Your task to perform on an android device: Add usb-c to the cart on ebay.com Image 0: 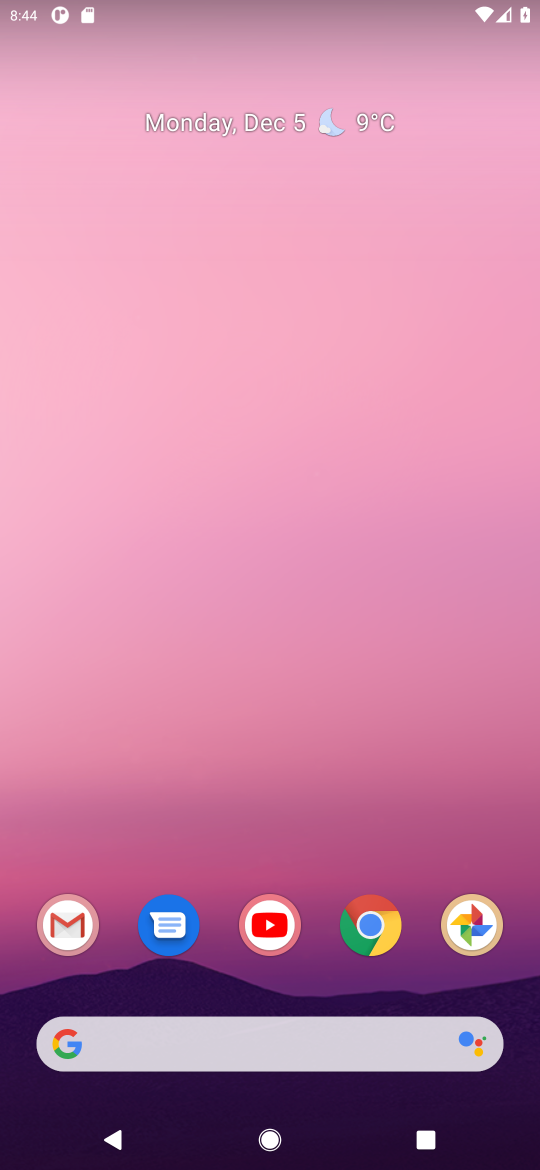
Step 0: click (358, 940)
Your task to perform on an android device: Add usb-c to the cart on ebay.com Image 1: 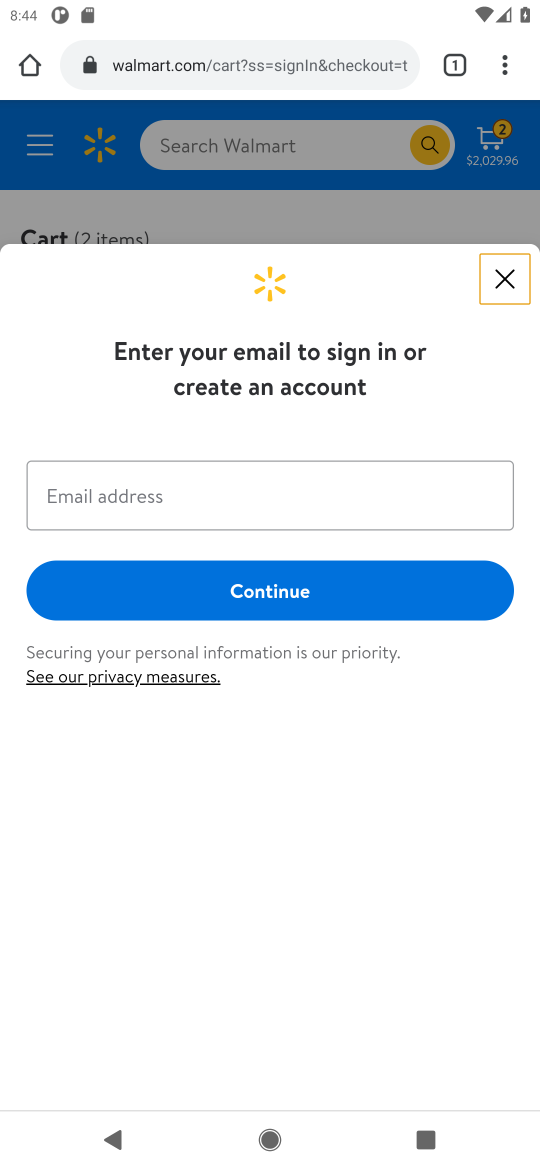
Step 1: click (187, 74)
Your task to perform on an android device: Add usb-c to the cart on ebay.com Image 2: 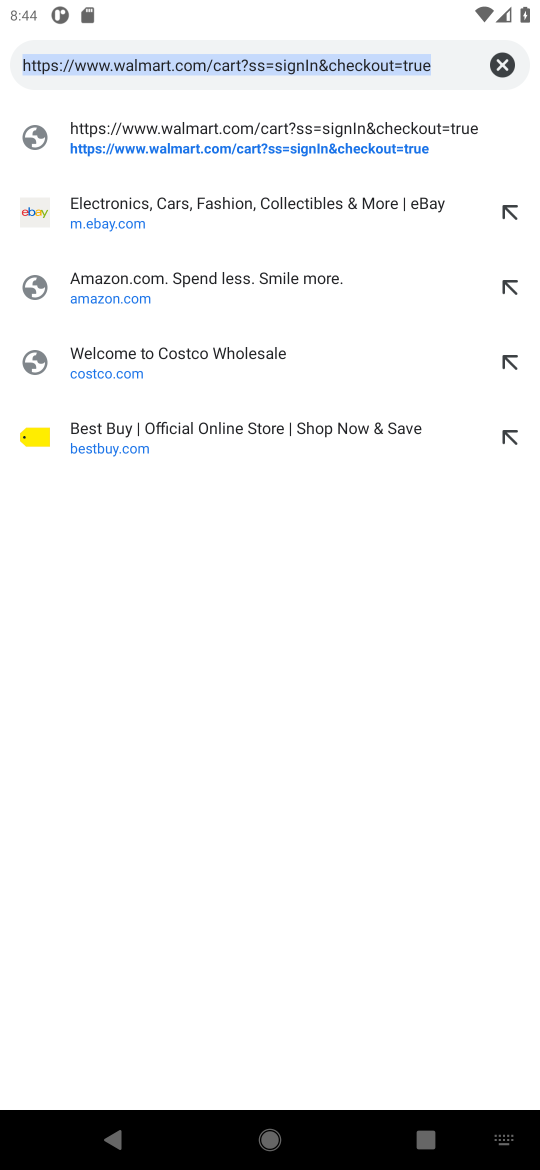
Step 2: click (104, 214)
Your task to perform on an android device: Add usb-c to the cart on ebay.com Image 3: 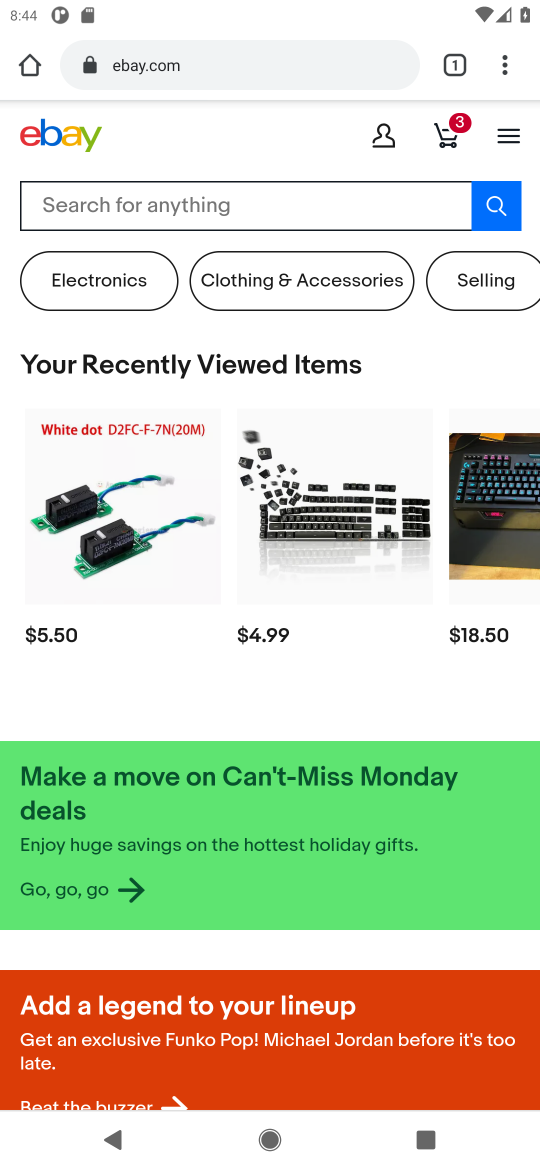
Step 3: click (133, 195)
Your task to perform on an android device: Add usb-c to the cart on ebay.com Image 4: 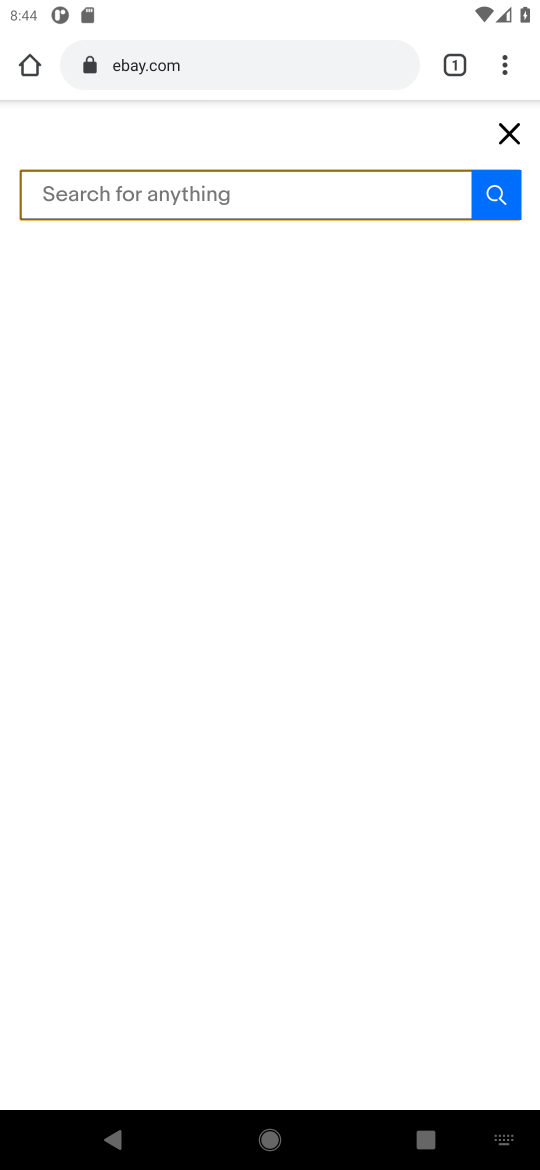
Step 4: type "usb-c"
Your task to perform on an android device: Add usb-c to the cart on ebay.com Image 5: 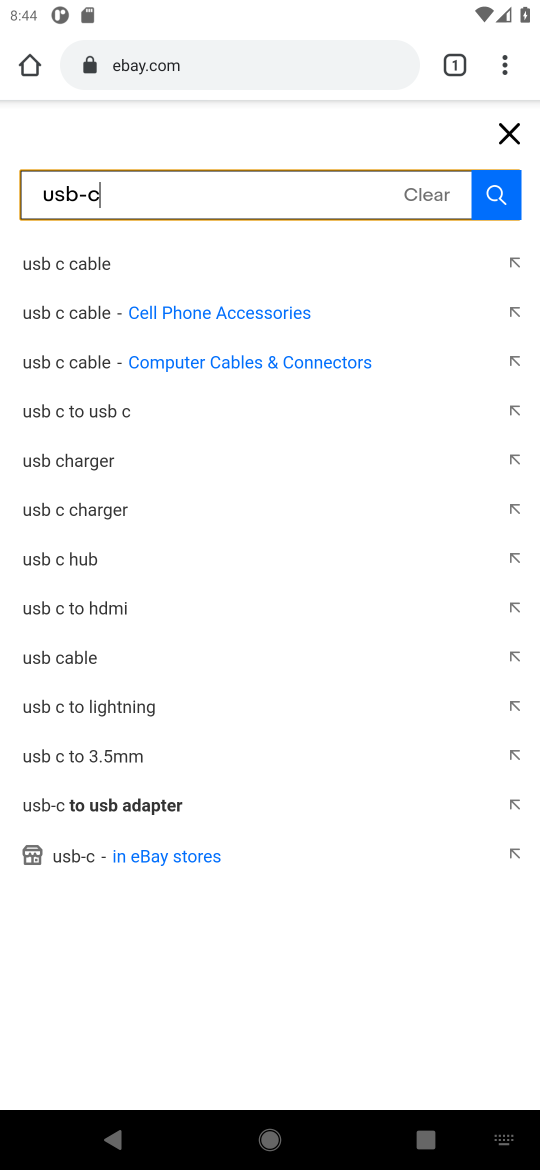
Step 5: click (499, 202)
Your task to perform on an android device: Add usb-c to the cart on ebay.com Image 6: 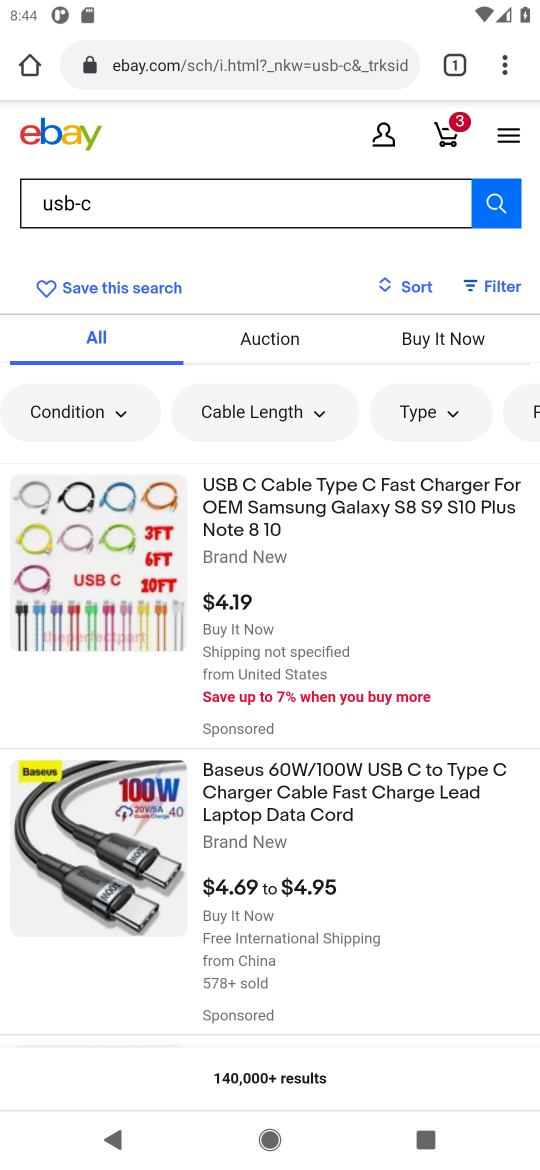
Step 6: click (264, 524)
Your task to perform on an android device: Add usb-c to the cart on ebay.com Image 7: 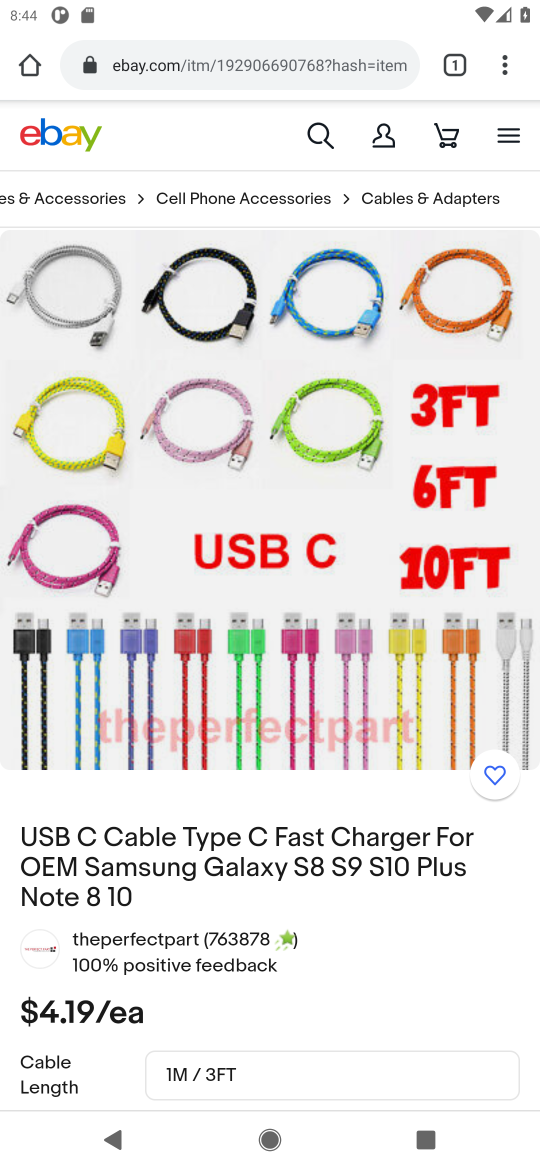
Step 7: drag from (302, 736) to (296, 276)
Your task to perform on an android device: Add usb-c to the cart on ebay.com Image 8: 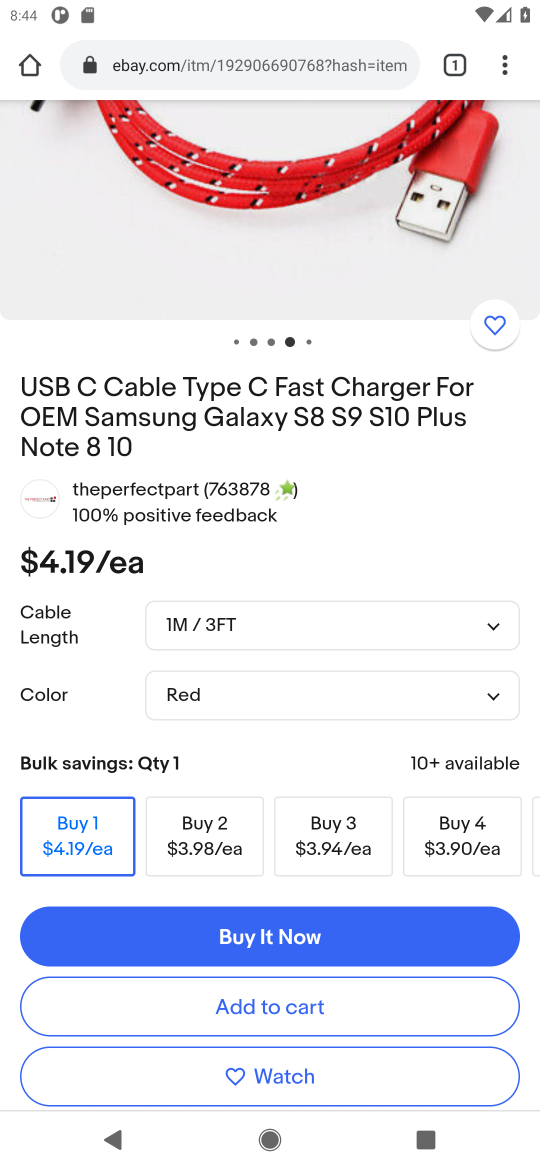
Step 8: click (260, 1006)
Your task to perform on an android device: Add usb-c to the cart on ebay.com Image 9: 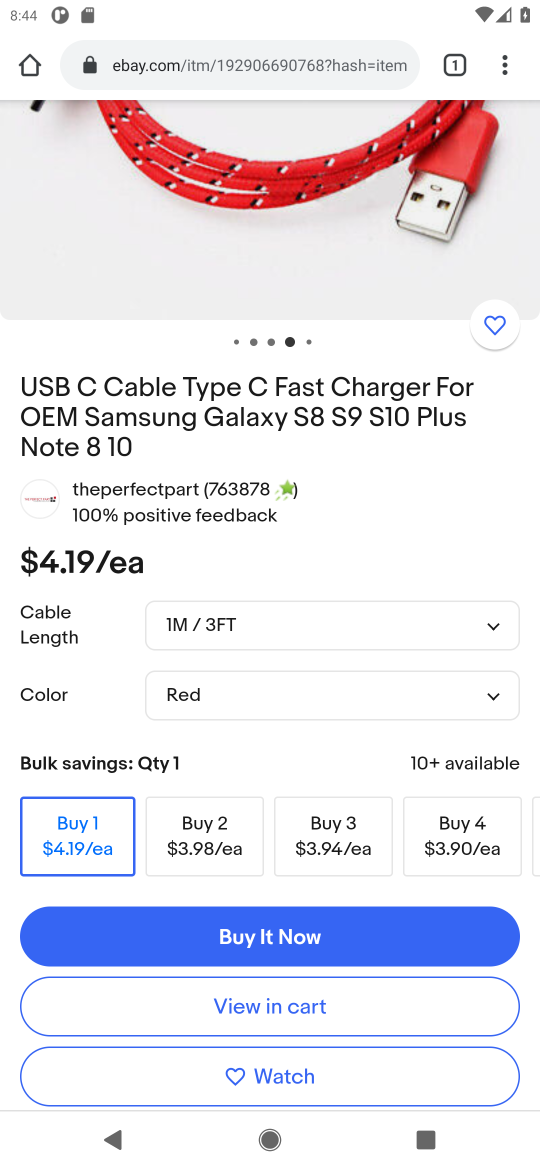
Step 9: task complete